Your task to perform on an android device: turn notification dots on Image 0: 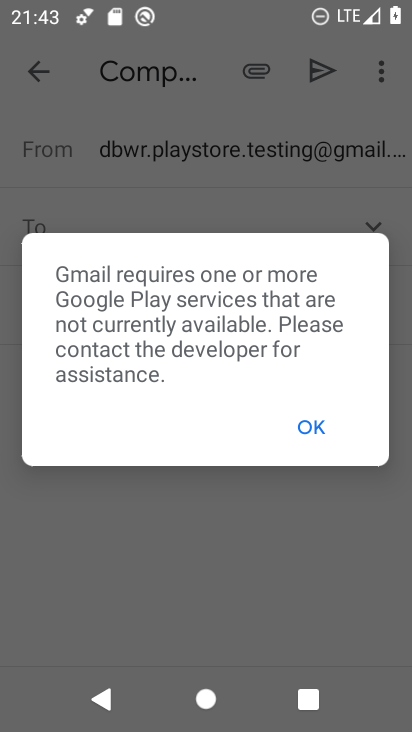
Step 0: press home button
Your task to perform on an android device: turn notification dots on Image 1: 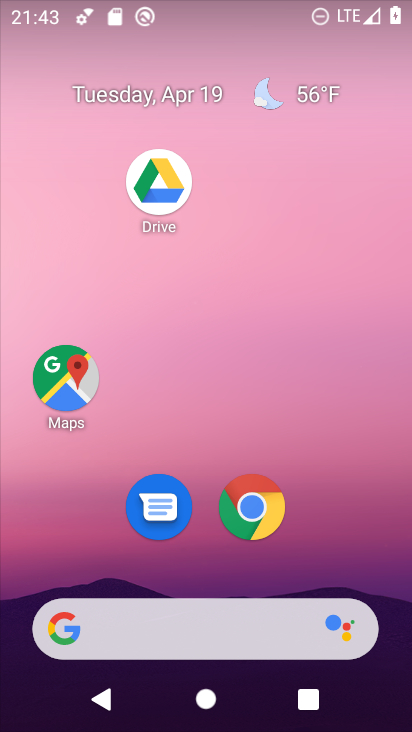
Step 1: drag from (337, 521) to (319, 135)
Your task to perform on an android device: turn notification dots on Image 2: 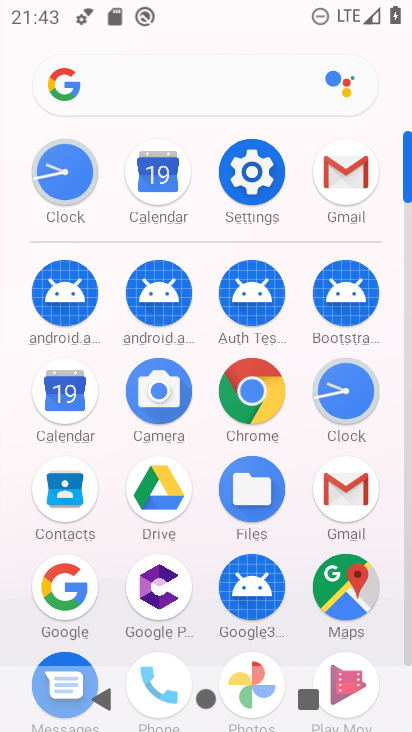
Step 2: click (255, 181)
Your task to perform on an android device: turn notification dots on Image 3: 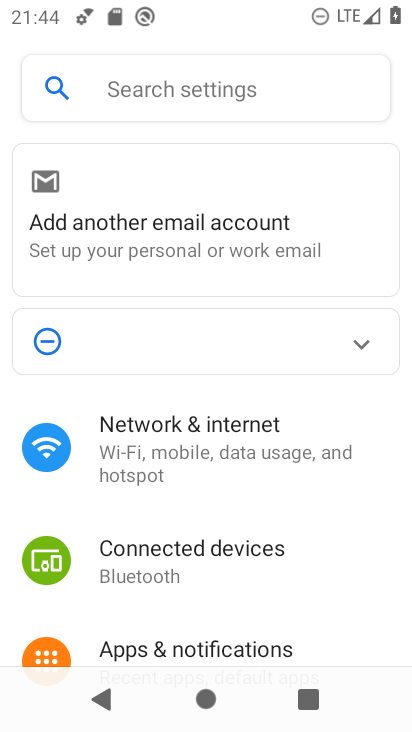
Step 3: click (187, 631)
Your task to perform on an android device: turn notification dots on Image 4: 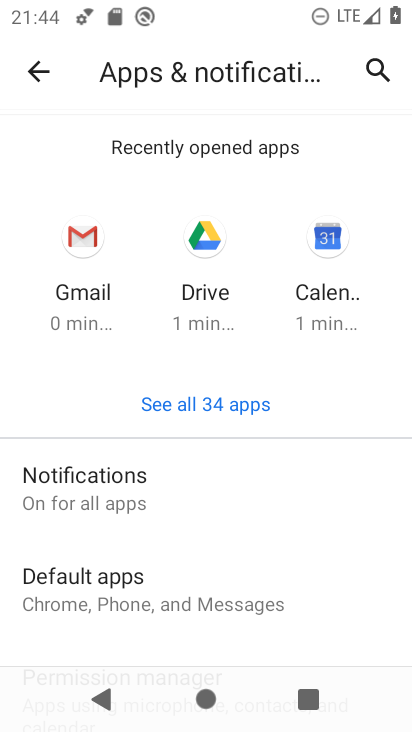
Step 4: click (143, 474)
Your task to perform on an android device: turn notification dots on Image 5: 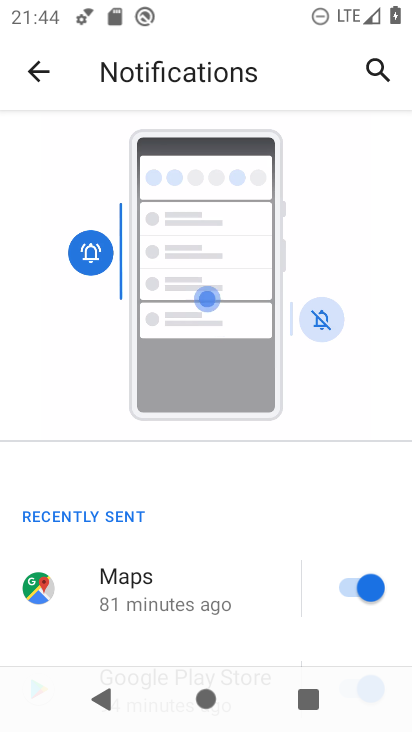
Step 5: drag from (189, 536) to (224, 268)
Your task to perform on an android device: turn notification dots on Image 6: 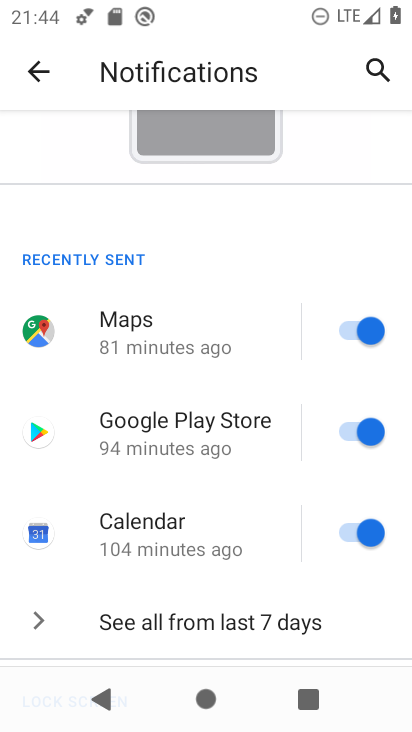
Step 6: drag from (210, 503) to (252, 205)
Your task to perform on an android device: turn notification dots on Image 7: 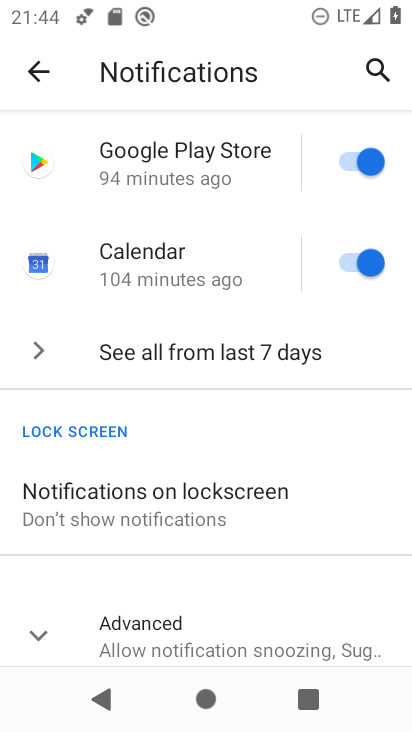
Step 7: click (36, 630)
Your task to perform on an android device: turn notification dots on Image 8: 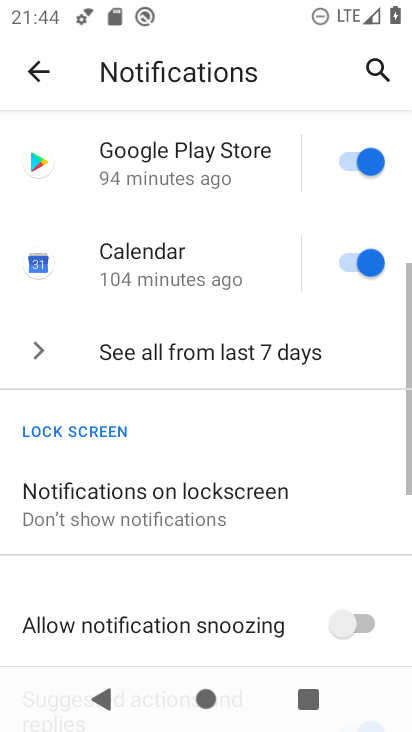
Step 8: drag from (223, 457) to (248, 153)
Your task to perform on an android device: turn notification dots on Image 9: 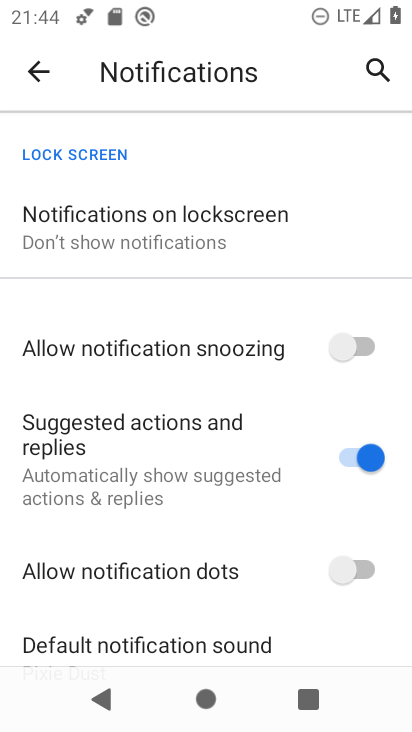
Step 9: click (358, 570)
Your task to perform on an android device: turn notification dots on Image 10: 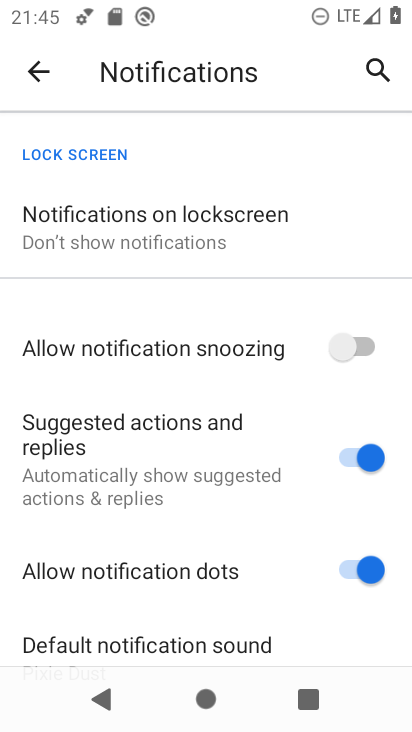
Step 10: task complete